Your task to perform on an android device: toggle notifications settings in the gmail app Image 0: 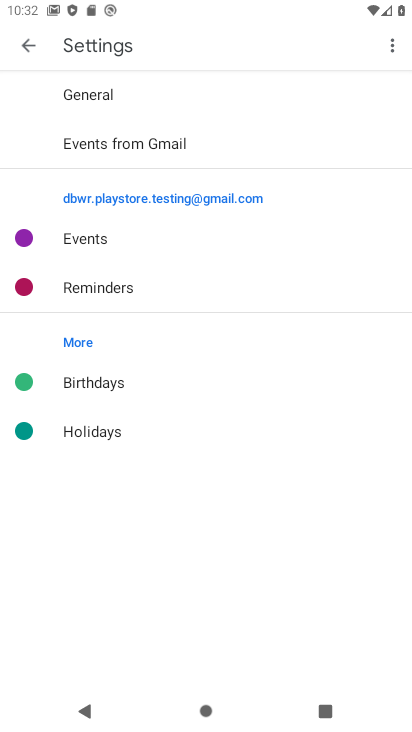
Step 0: press home button
Your task to perform on an android device: toggle notifications settings in the gmail app Image 1: 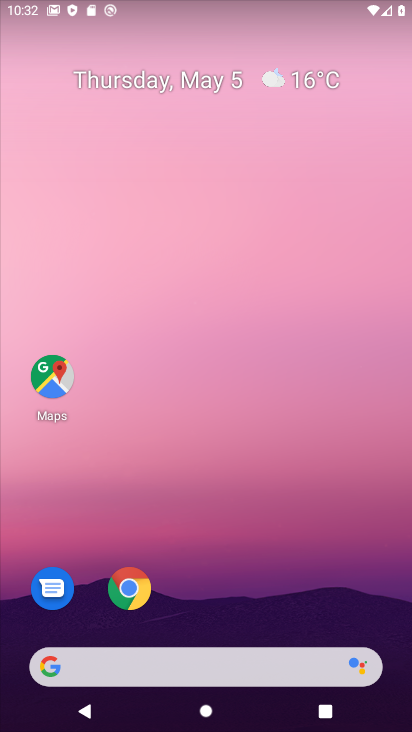
Step 1: drag from (239, 592) to (243, 201)
Your task to perform on an android device: toggle notifications settings in the gmail app Image 2: 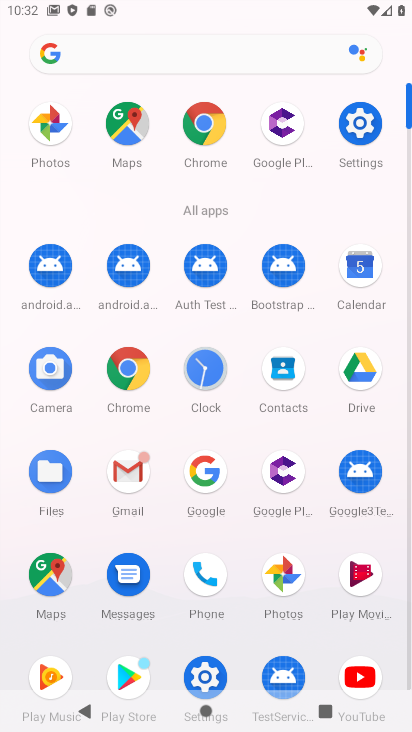
Step 2: click (141, 457)
Your task to perform on an android device: toggle notifications settings in the gmail app Image 3: 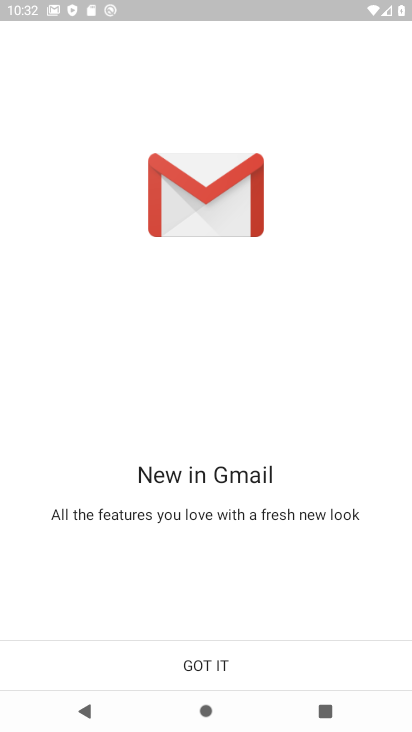
Step 3: click (211, 660)
Your task to perform on an android device: toggle notifications settings in the gmail app Image 4: 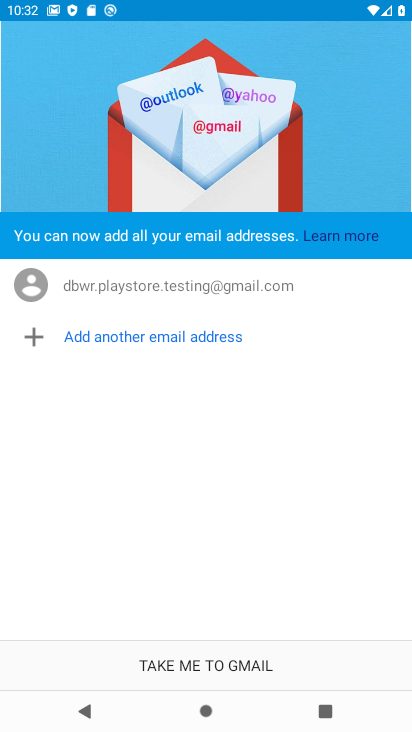
Step 4: click (211, 660)
Your task to perform on an android device: toggle notifications settings in the gmail app Image 5: 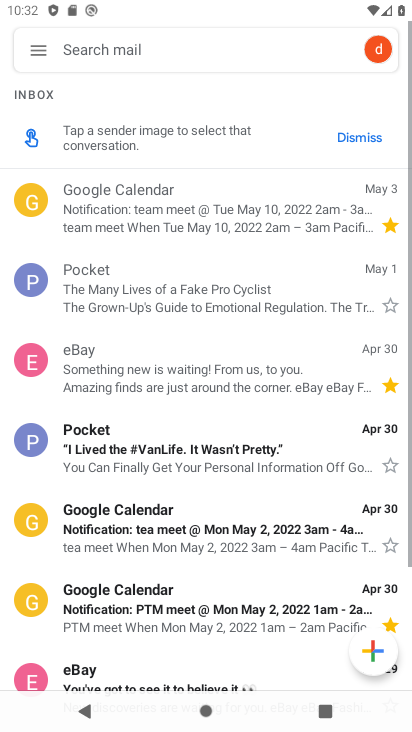
Step 5: click (39, 53)
Your task to perform on an android device: toggle notifications settings in the gmail app Image 6: 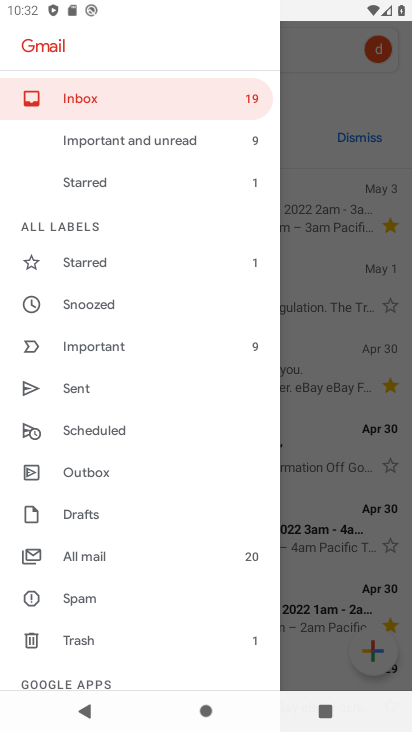
Step 6: drag from (177, 616) to (188, 174)
Your task to perform on an android device: toggle notifications settings in the gmail app Image 7: 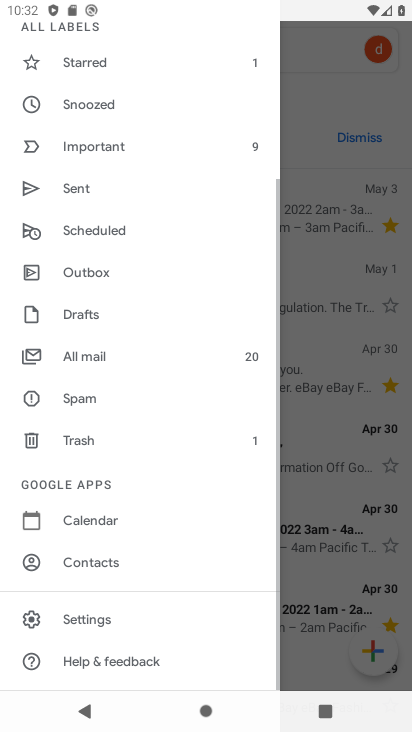
Step 7: click (166, 611)
Your task to perform on an android device: toggle notifications settings in the gmail app Image 8: 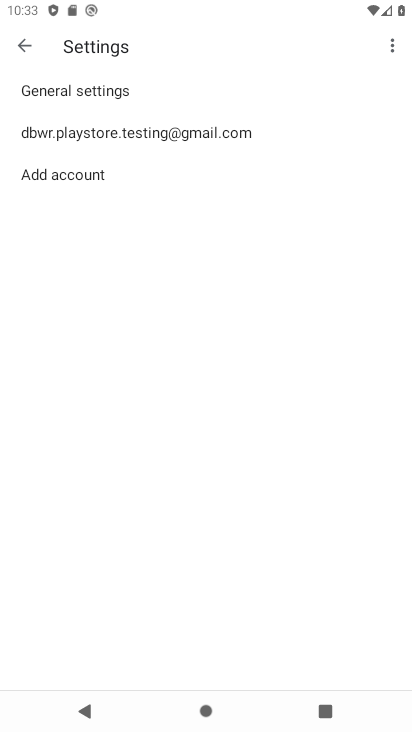
Step 8: click (273, 139)
Your task to perform on an android device: toggle notifications settings in the gmail app Image 9: 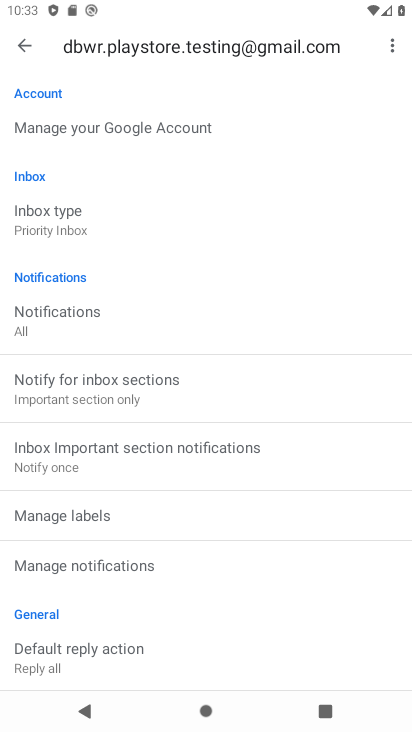
Step 9: click (238, 573)
Your task to perform on an android device: toggle notifications settings in the gmail app Image 10: 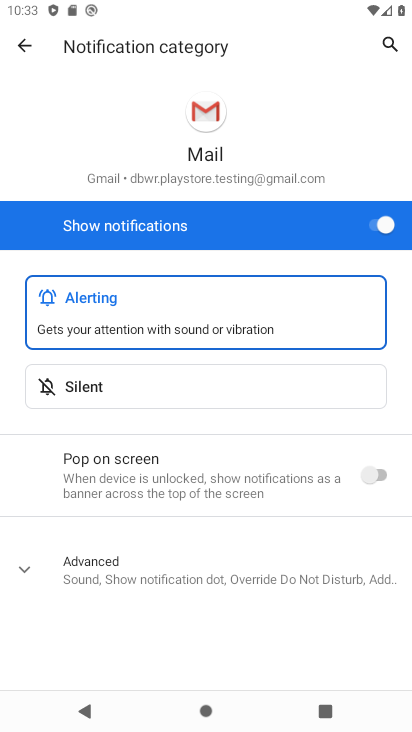
Step 10: click (334, 378)
Your task to perform on an android device: toggle notifications settings in the gmail app Image 11: 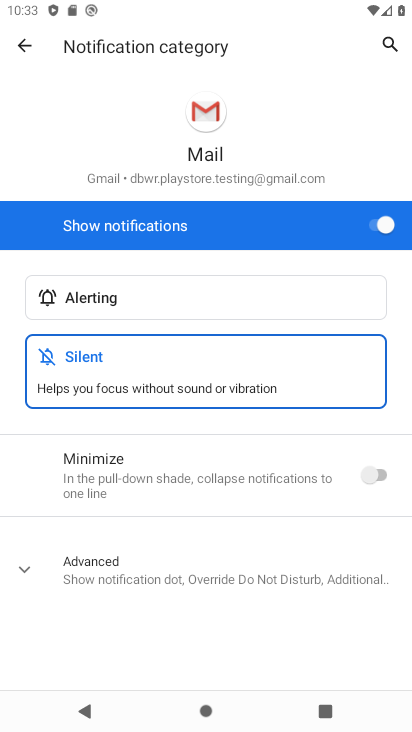
Step 11: click (374, 466)
Your task to perform on an android device: toggle notifications settings in the gmail app Image 12: 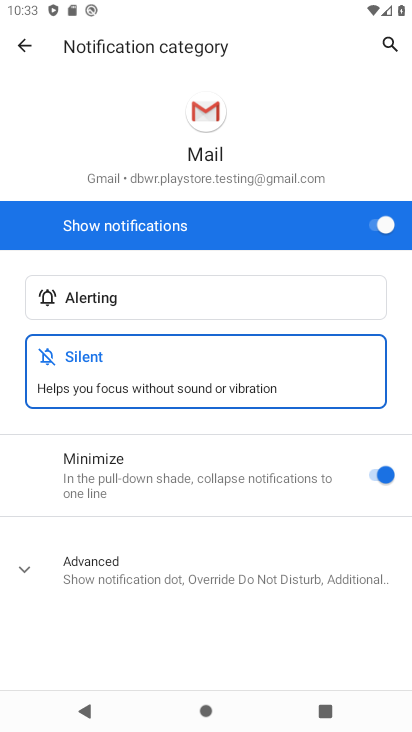
Step 12: task complete